Your task to perform on an android device: Go to privacy settings Image 0: 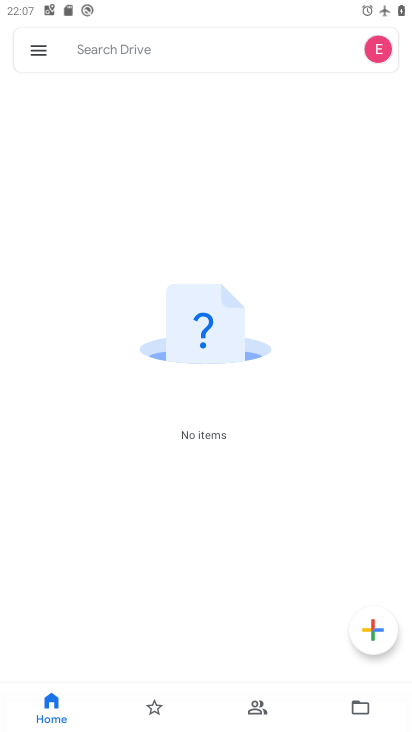
Step 0: press home button
Your task to perform on an android device: Go to privacy settings Image 1: 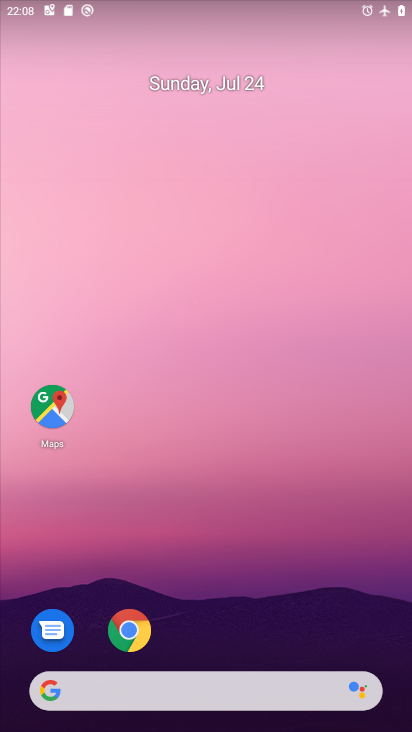
Step 1: drag from (182, 635) to (196, 338)
Your task to perform on an android device: Go to privacy settings Image 2: 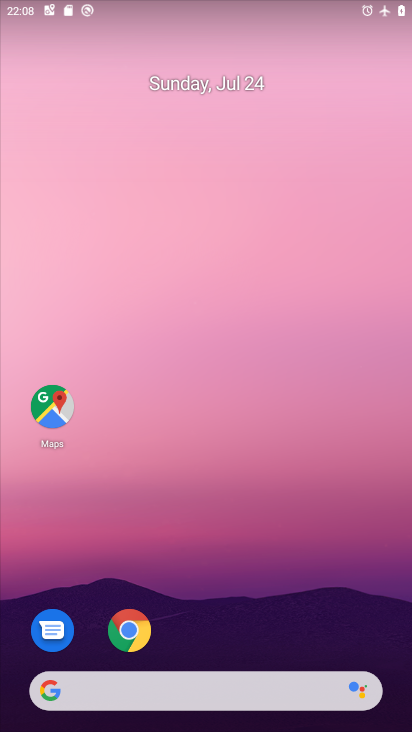
Step 2: drag from (205, 656) to (241, 377)
Your task to perform on an android device: Go to privacy settings Image 3: 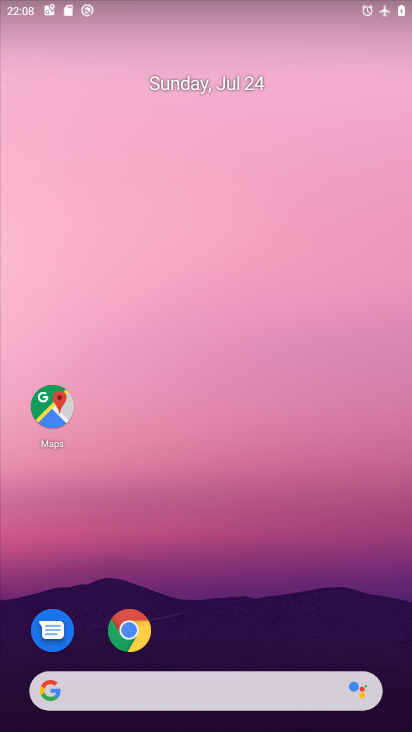
Step 3: drag from (224, 645) to (247, 177)
Your task to perform on an android device: Go to privacy settings Image 4: 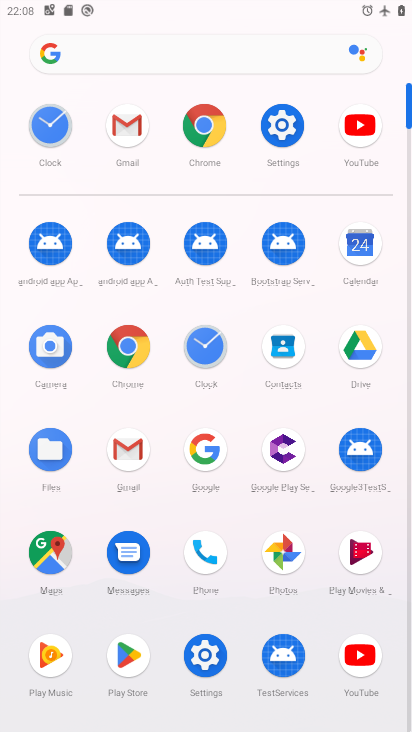
Step 4: click (276, 114)
Your task to perform on an android device: Go to privacy settings Image 5: 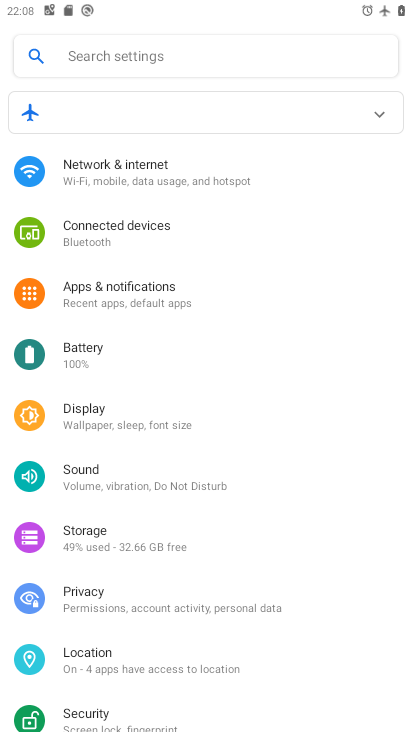
Step 5: click (131, 602)
Your task to perform on an android device: Go to privacy settings Image 6: 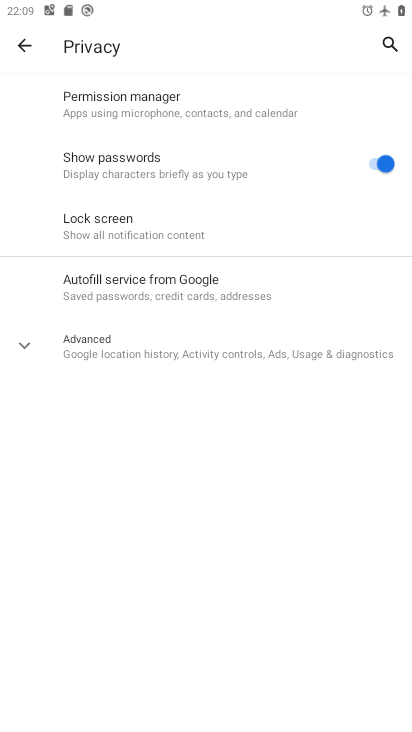
Step 6: task complete